Your task to perform on an android device: Open settings Image 0: 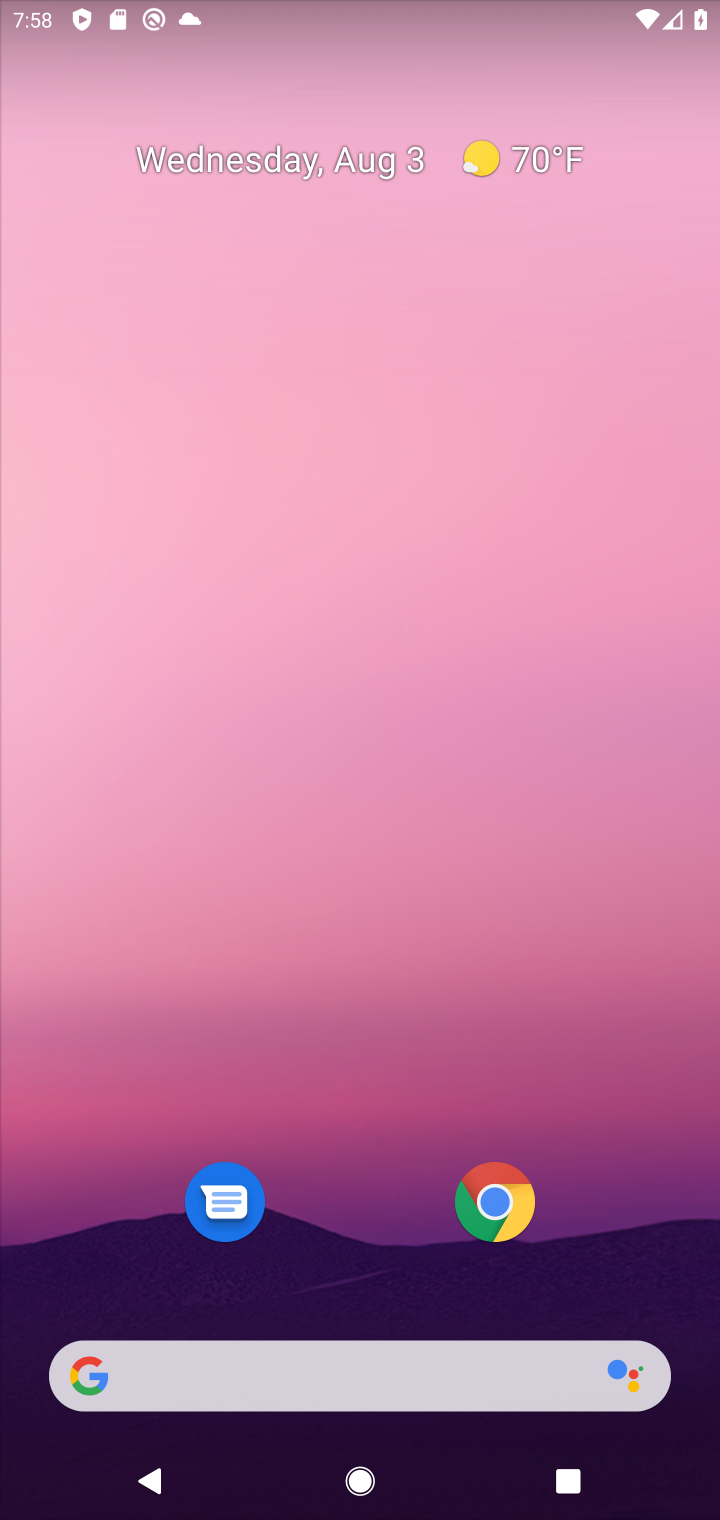
Step 0: drag from (333, 1367) to (493, 297)
Your task to perform on an android device: Open settings Image 1: 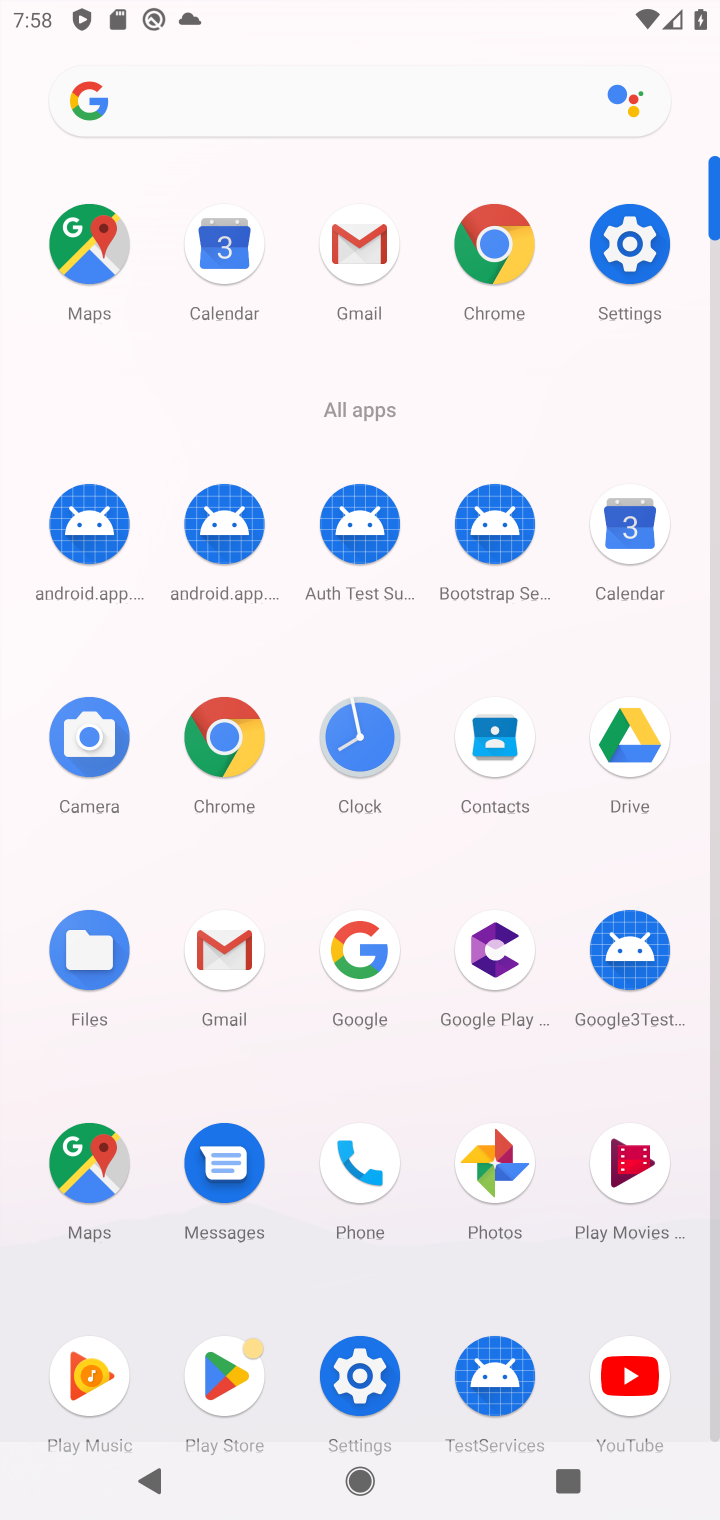
Step 1: click (628, 251)
Your task to perform on an android device: Open settings Image 2: 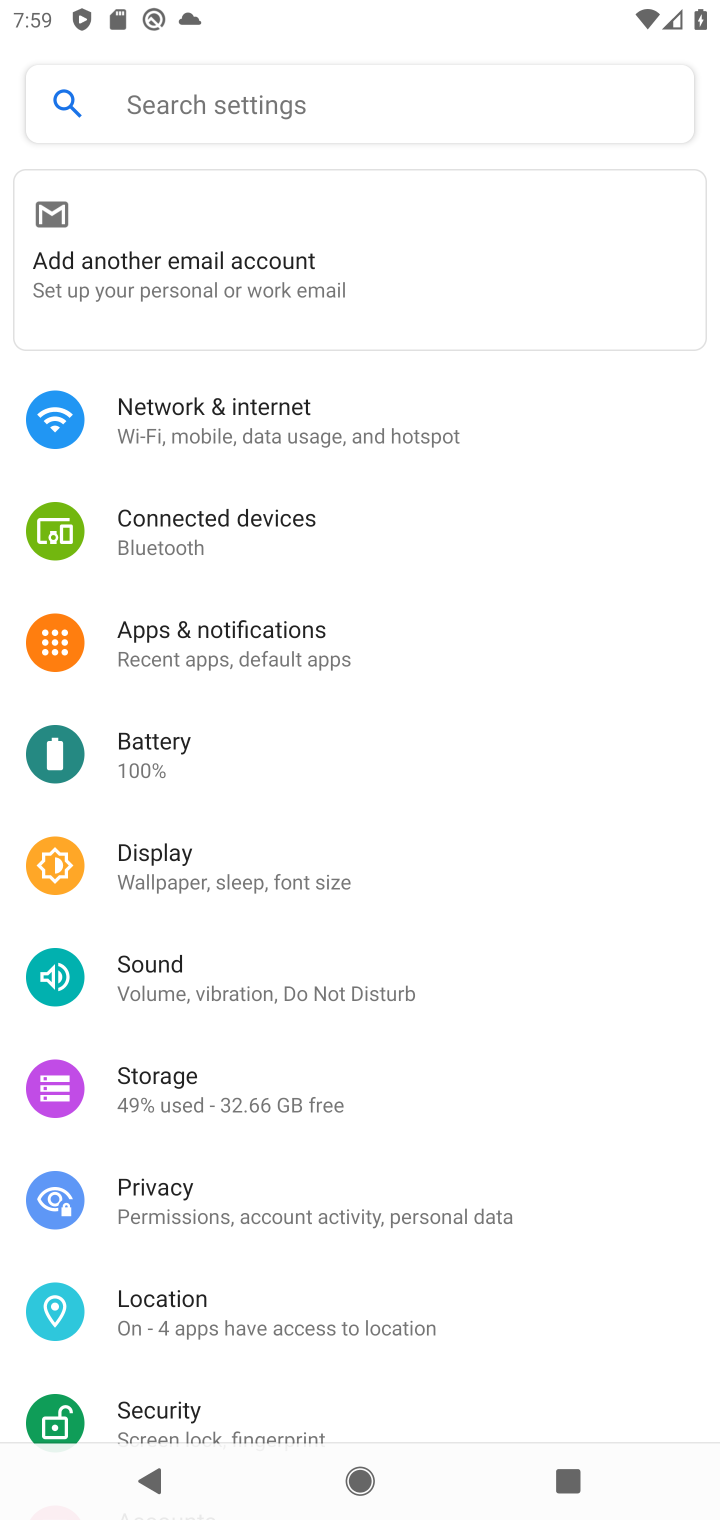
Step 2: task complete